Your task to perform on an android device: remove spam from my inbox in the gmail app Image 0: 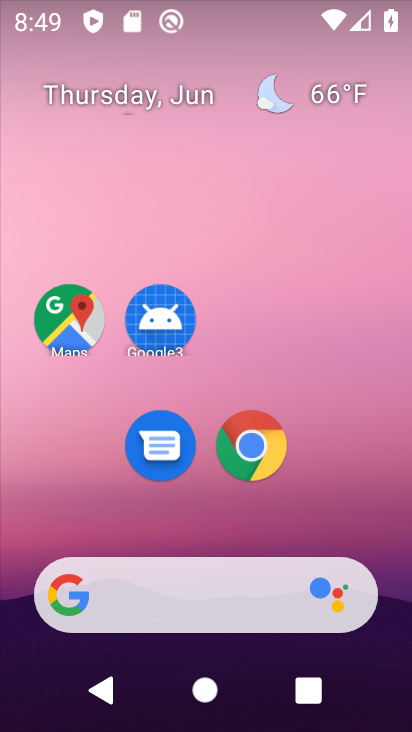
Step 0: drag from (292, 522) to (316, 60)
Your task to perform on an android device: remove spam from my inbox in the gmail app Image 1: 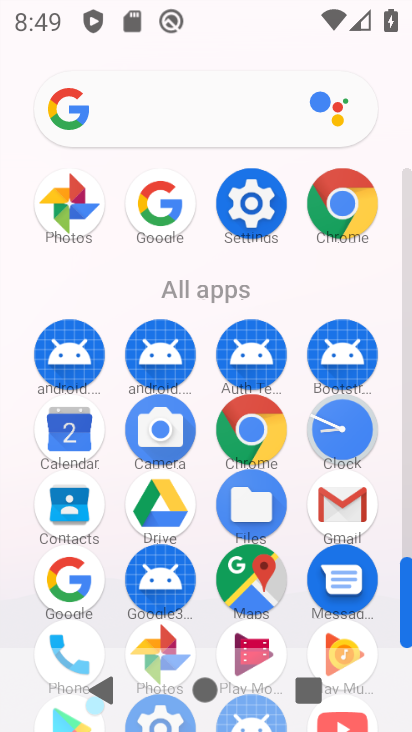
Step 1: click (345, 499)
Your task to perform on an android device: remove spam from my inbox in the gmail app Image 2: 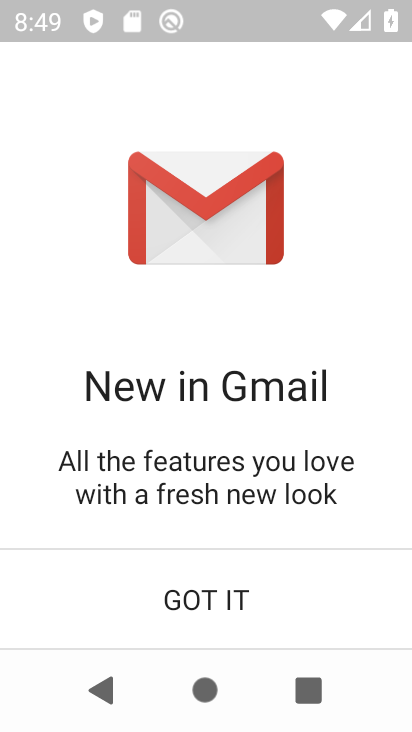
Step 2: click (211, 598)
Your task to perform on an android device: remove spam from my inbox in the gmail app Image 3: 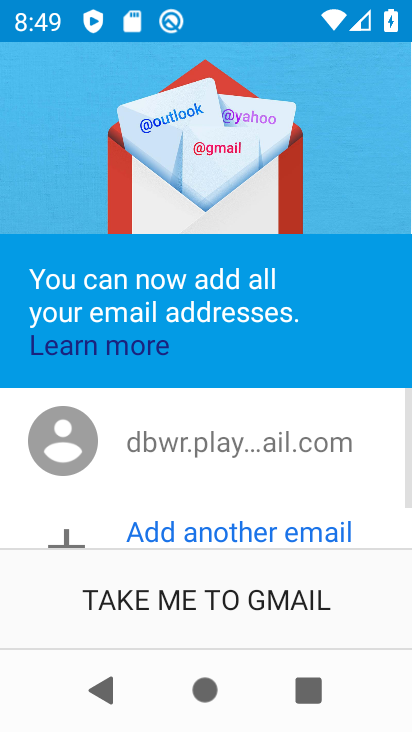
Step 3: click (211, 598)
Your task to perform on an android device: remove spam from my inbox in the gmail app Image 4: 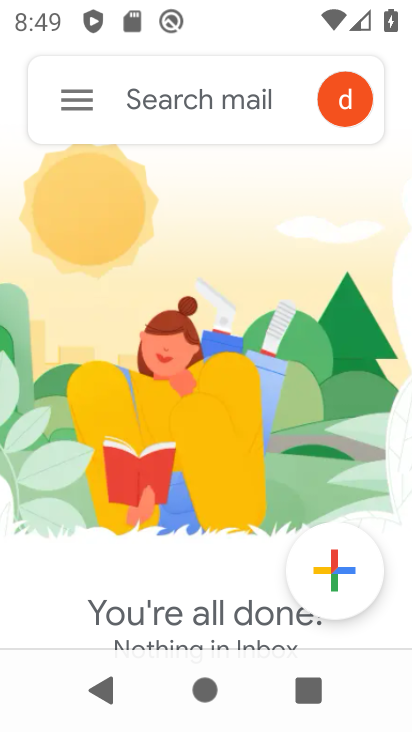
Step 4: click (79, 97)
Your task to perform on an android device: remove spam from my inbox in the gmail app Image 5: 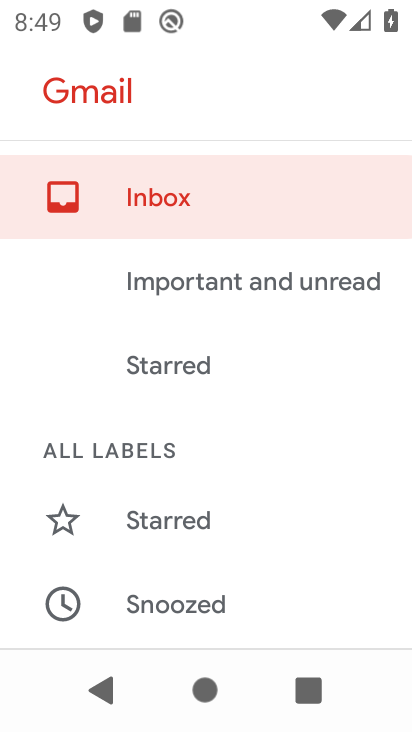
Step 5: drag from (201, 573) to (221, 204)
Your task to perform on an android device: remove spam from my inbox in the gmail app Image 6: 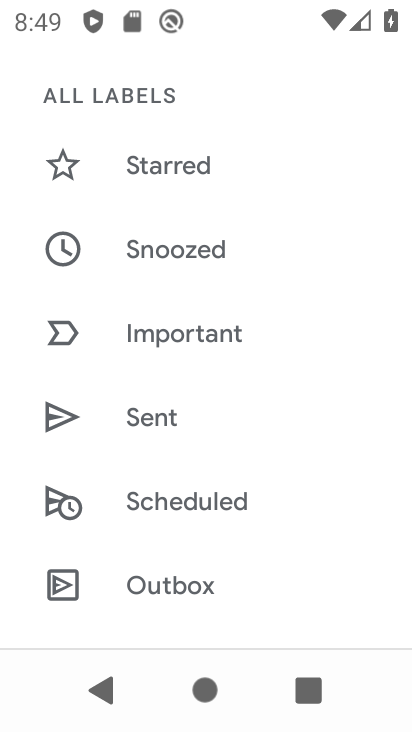
Step 6: drag from (208, 561) to (201, 222)
Your task to perform on an android device: remove spam from my inbox in the gmail app Image 7: 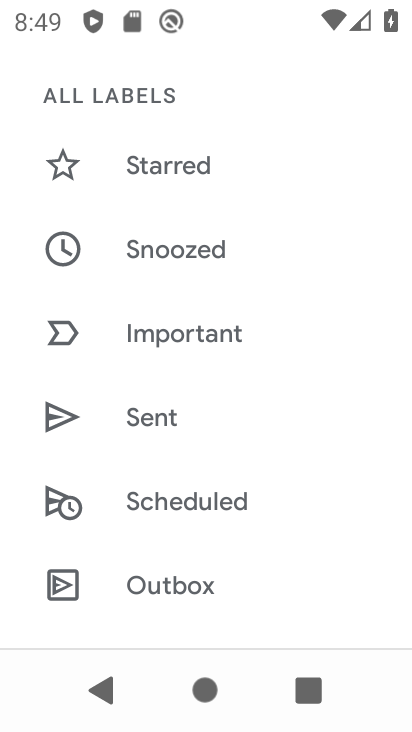
Step 7: drag from (205, 602) to (233, 237)
Your task to perform on an android device: remove spam from my inbox in the gmail app Image 8: 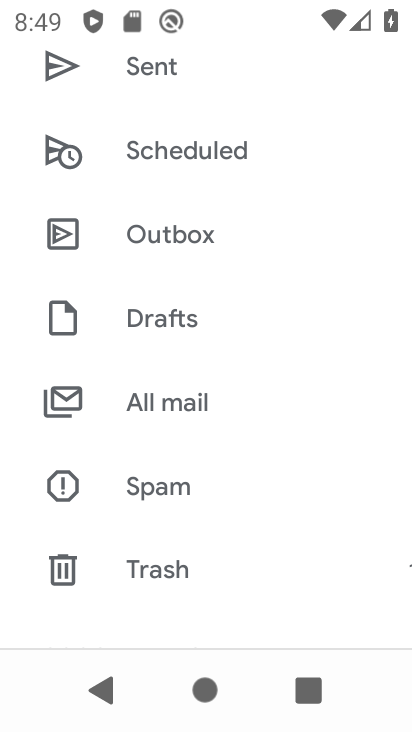
Step 8: click (183, 495)
Your task to perform on an android device: remove spam from my inbox in the gmail app Image 9: 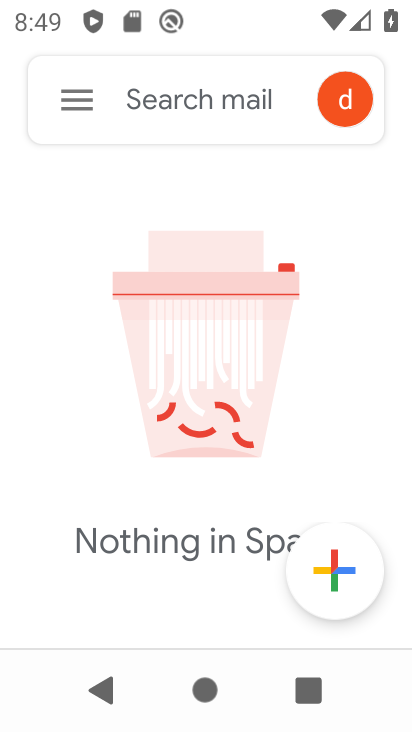
Step 9: task complete